Your task to perform on an android device: turn on the 24-hour format for clock Image 0: 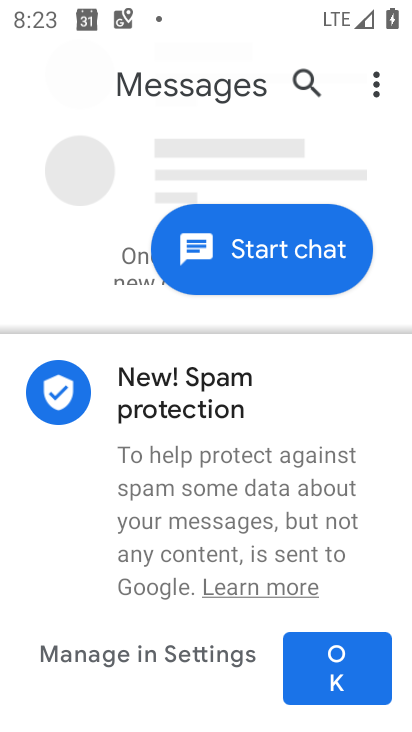
Step 0: press home button
Your task to perform on an android device: turn on the 24-hour format for clock Image 1: 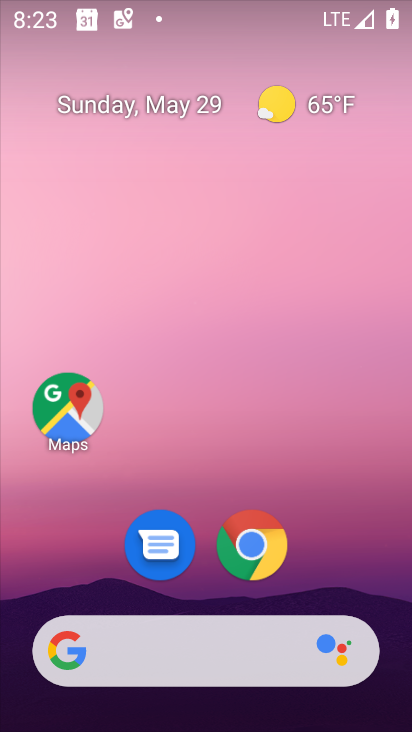
Step 1: drag from (210, 590) to (171, 230)
Your task to perform on an android device: turn on the 24-hour format for clock Image 2: 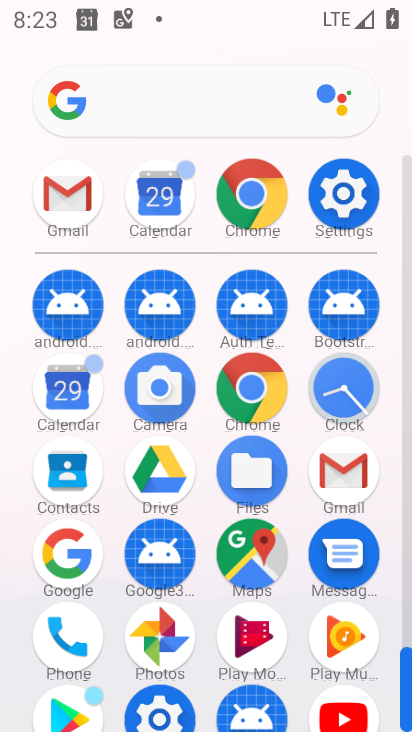
Step 2: click (337, 388)
Your task to perform on an android device: turn on the 24-hour format for clock Image 3: 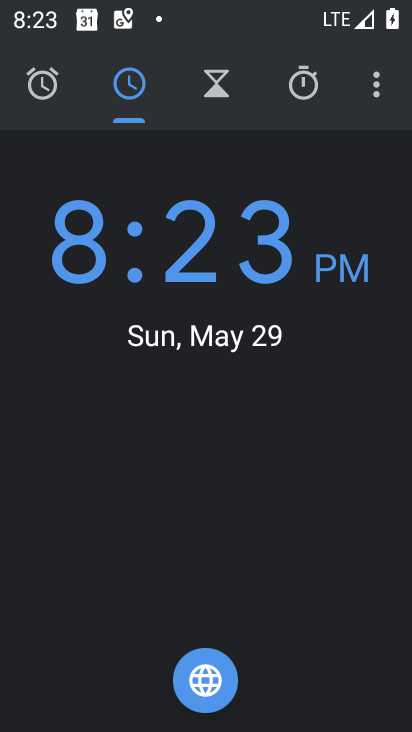
Step 3: click (376, 86)
Your task to perform on an android device: turn on the 24-hour format for clock Image 4: 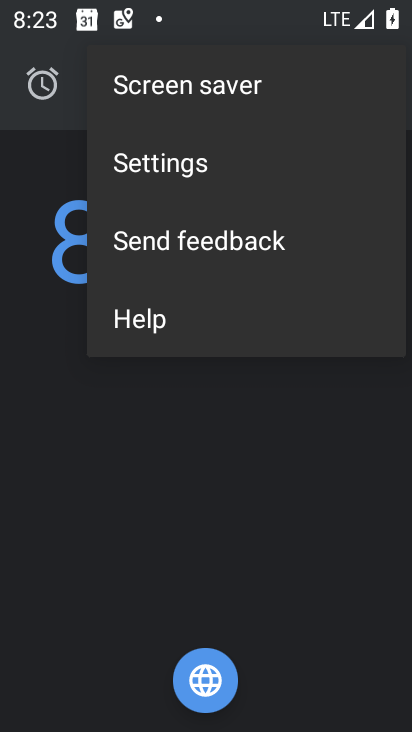
Step 4: click (202, 151)
Your task to perform on an android device: turn on the 24-hour format for clock Image 5: 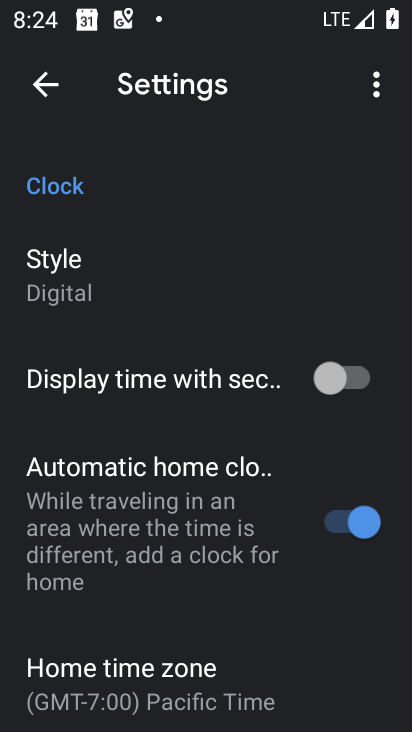
Step 5: drag from (269, 599) to (275, 314)
Your task to perform on an android device: turn on the 24-hour format for clock Image 6: 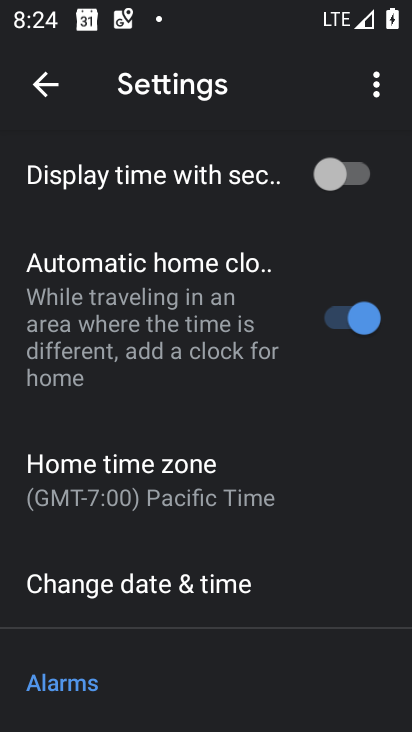
Step 6: click (153, 592)
Your task to perform on an android device: turn on the 24-hour format for clock Image 7: 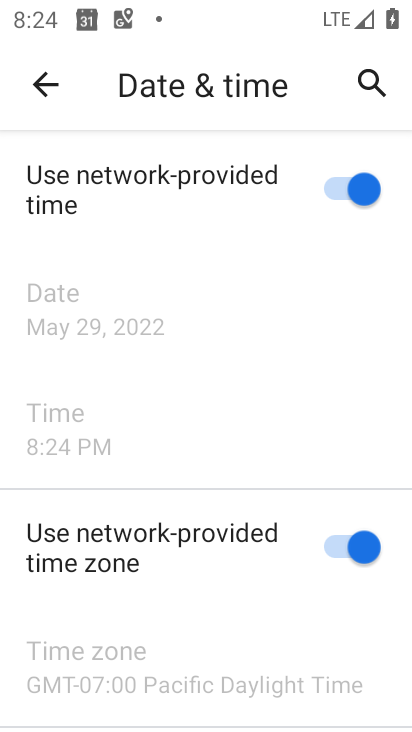
Step 7: drag from (271, 589) to (263, 361)
Your task to perform on an android device: turn on the 24-hour format for clock Image 8: 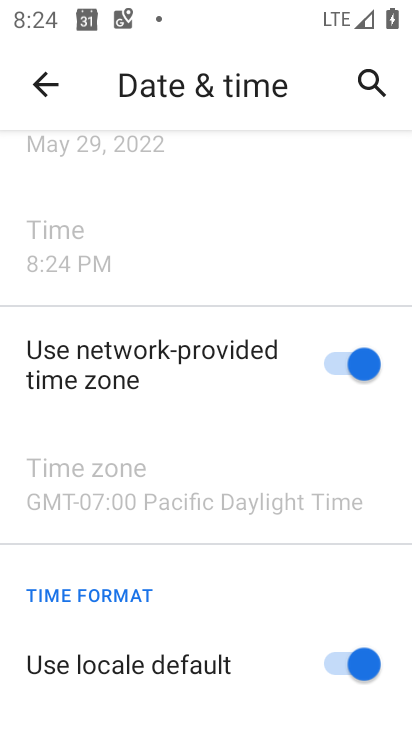
Step 8: click (345, 370)
Your task to perform on an android device: turn on the 24-hour format for clock Image 9: 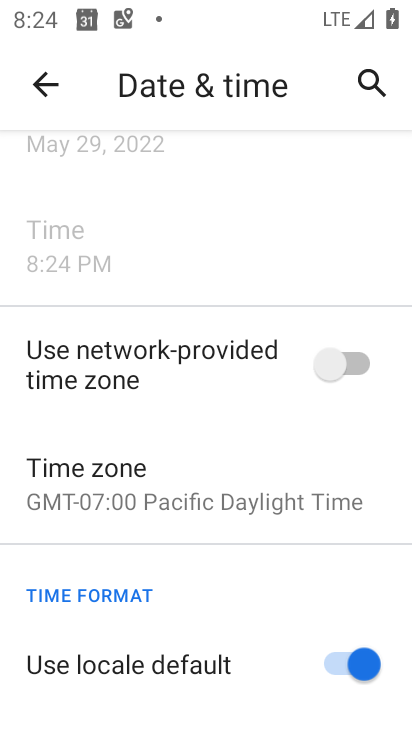
Step 9: click (343, 364)
Your task to perform on an android device: turn on the 24-hour format for clock Image 10: 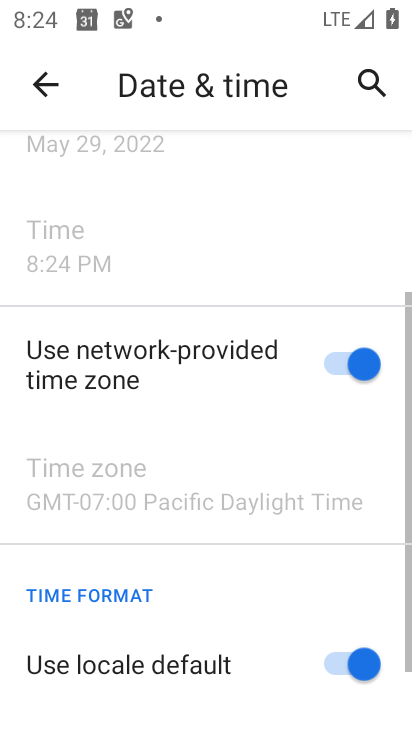
Step 10: drag from (208, 626) to (259, 367)
Your task to perform on an android device: turn on the 24-hour format for clock Image 11: 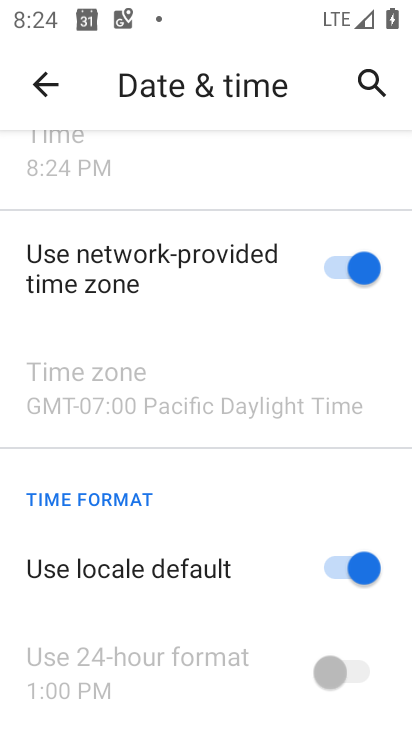
Step 11: click (361, 554)
Your task to perform on an android device: turn on the 24-hour format for clock Image 12: 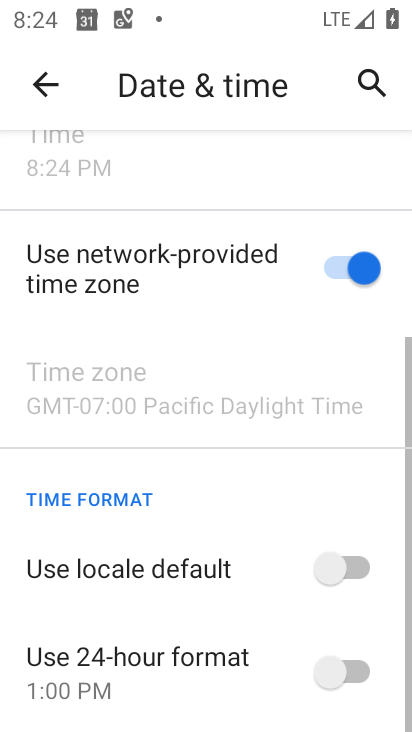
Step 12: click (345, 676)
Your task to perform on an android device: turn on the 24-hour format for clock Image 13: 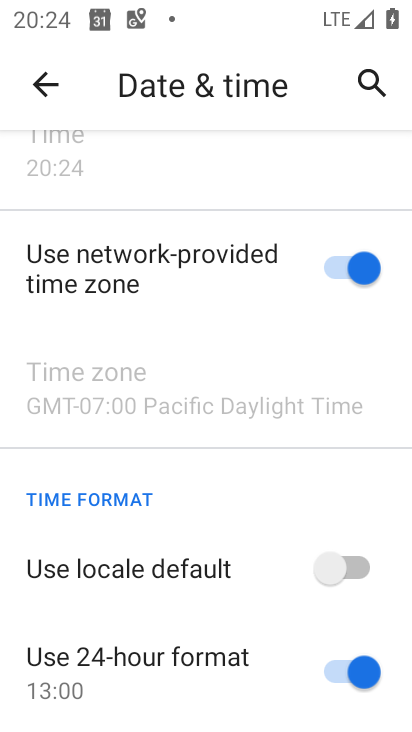
Step 13: task complete